Your task to perform on an android device: Check the weather Image 0: 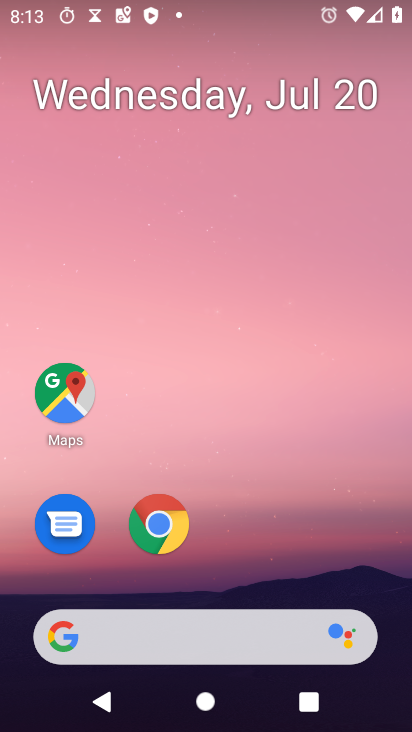
Step 0: click (179, 635)
Your task to perform on an android device: Check the weather Image 1: 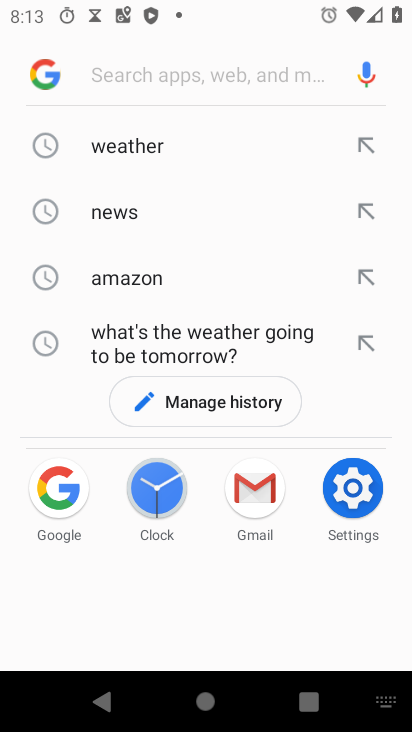
Step 1: click (119, 149)
Your task to perform on an android device: Check the weather Image 2: 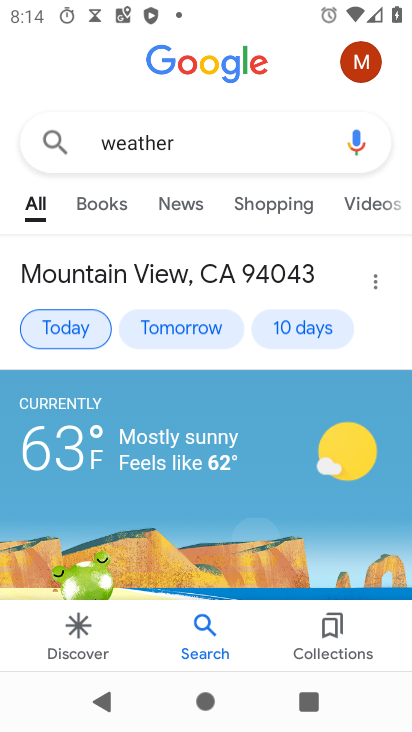
Step 2: task complete